Your task to perform on an android device: turn vacation reply on in the gmail app Image 0: 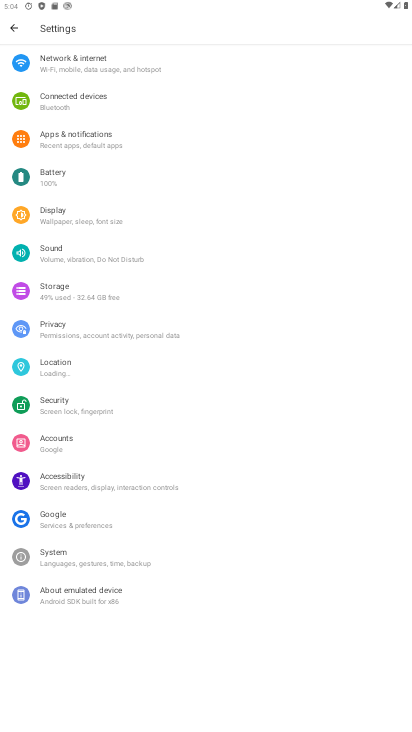
Step 0: drag from (240, 689) to (218, 165)
Your task to perform on an android device: turn vacation reply on in the gmail app Image 1: 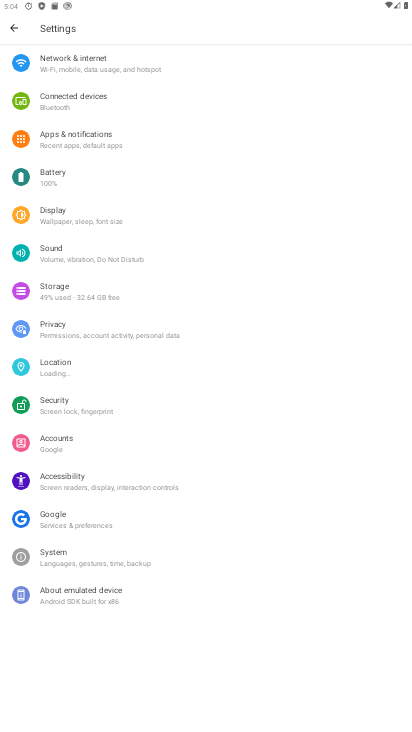
Step 1: press home button
Your task to perform on an android device: turn vacation reply on in the gmail app Image 2: 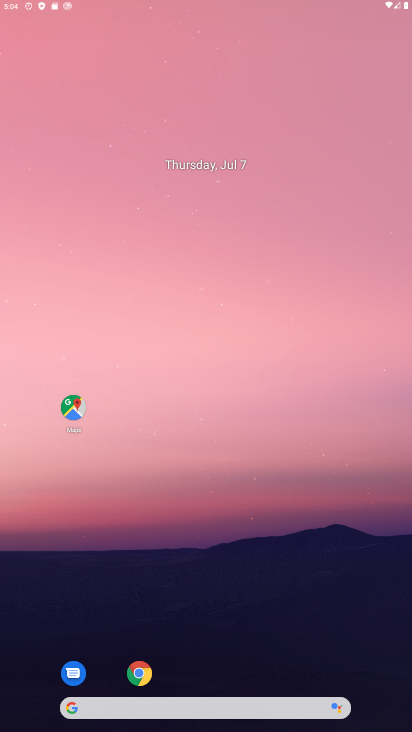
Step 2: drag from (284, 723) to (278, 130)
Your task to perform on an android device: turn vacation reply on in the gmail app Image 3: 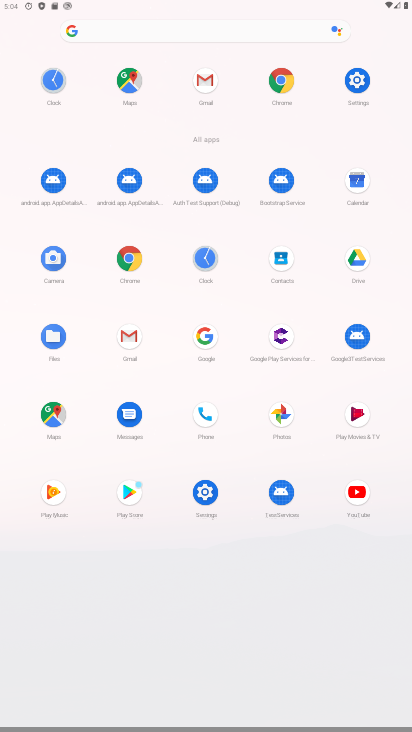
Step 3: click (122, 339)
Your task to perform on an android device: turn vacation reply on in the gmail app Image 4: 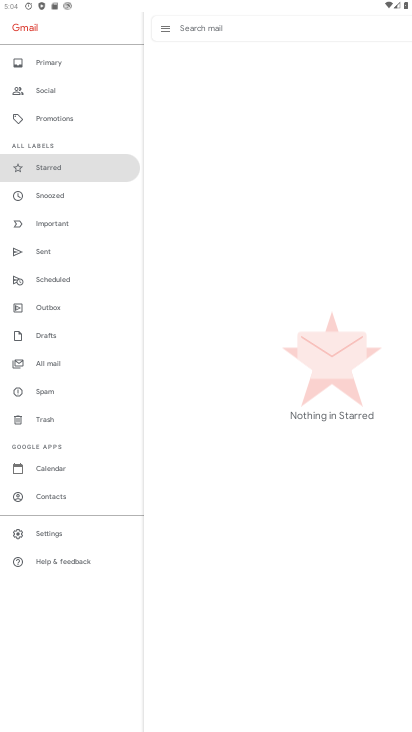
Step 4: click (74, 535)
Your task to perform on an android device: turn vacation reply on in the gmail app Image 5: 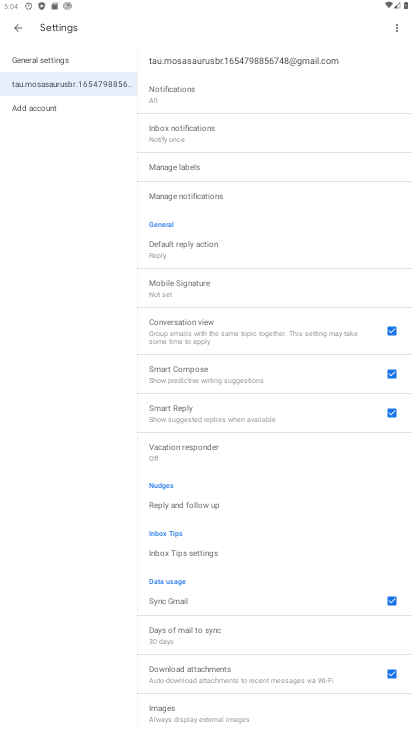
Step 5: drag from (265, 508) to (260, 280)
Your task to perform on an android device: turn vacation reply on in the gmail app Image 6: 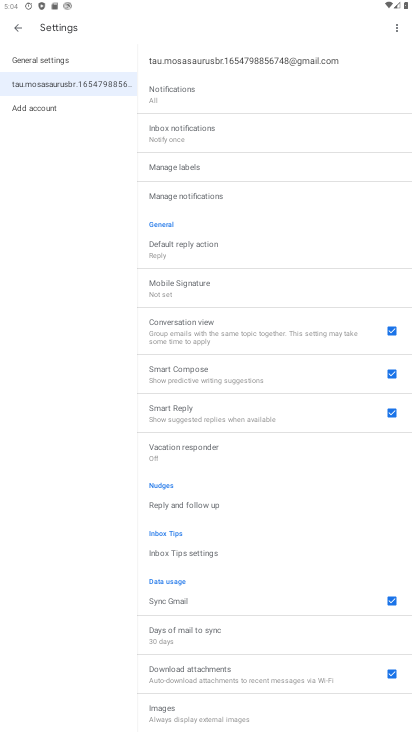
Step 6: click (201, 446)
Your task to perform on an android device: turn vacation reply on in the gmail app Image 7: 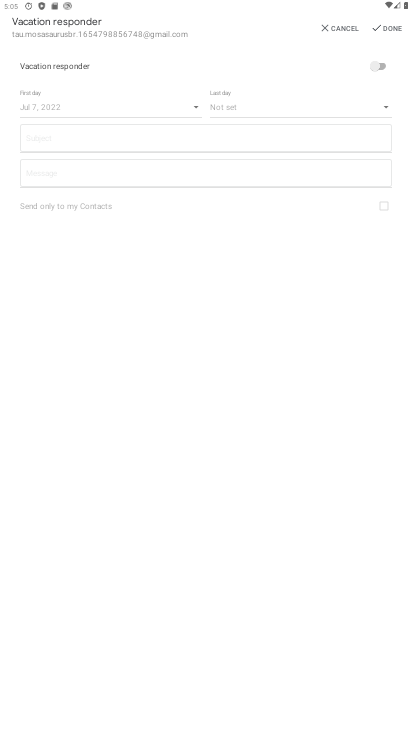
Step 7: click (390, 27)
Your task to perform on an android device: turn vacation reply on in the gmail app Image 8: 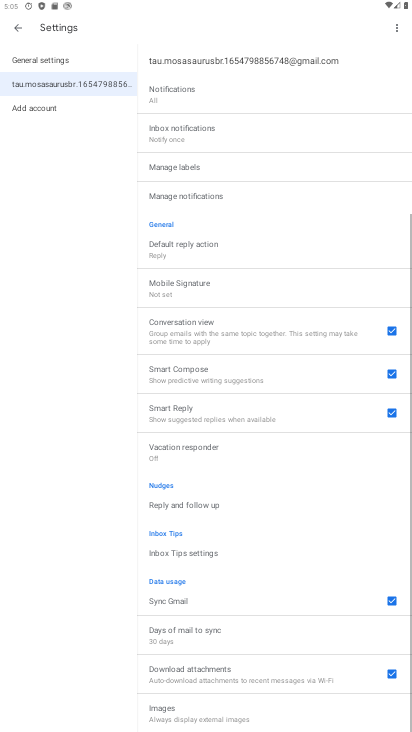
Step 8: task complete